Your task to perform on an android device: delete a single message in the gmail app Image 0: 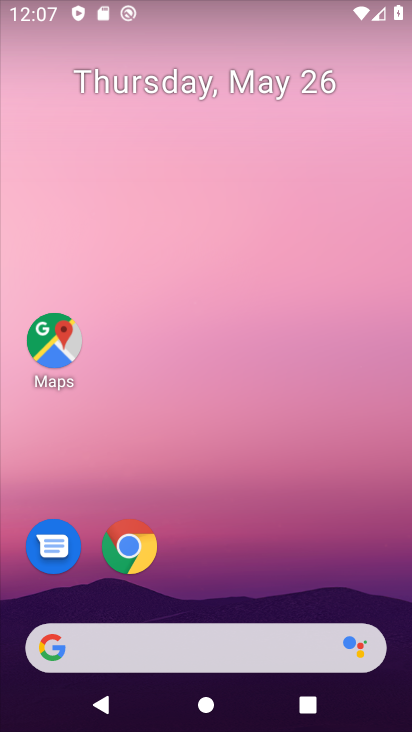
Step 0: drag from (397, 615) to (277, 16)
Your task to perform on an android device: delete a single message in the gmail app Image 1: 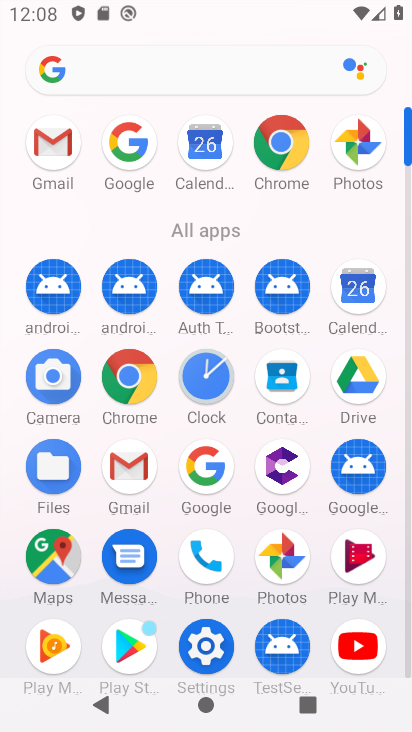
Step 1: click (116, 476)
Your task to perform on an android device: delete a single message in the gmail app Image 2: 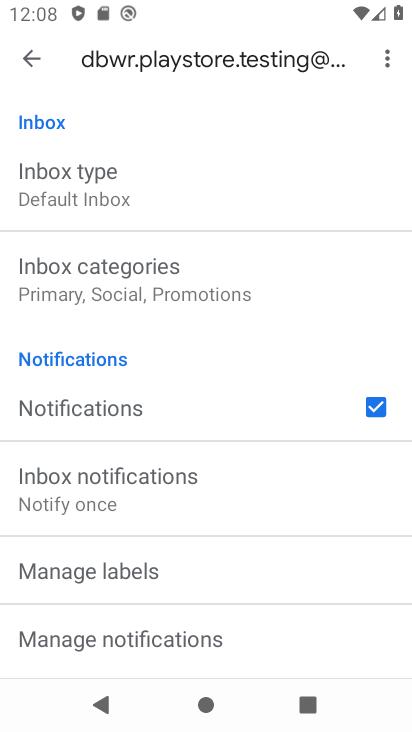
Step 2: press back button
Your task to perform on an android device: delete a single message in the gmail app Image 3: 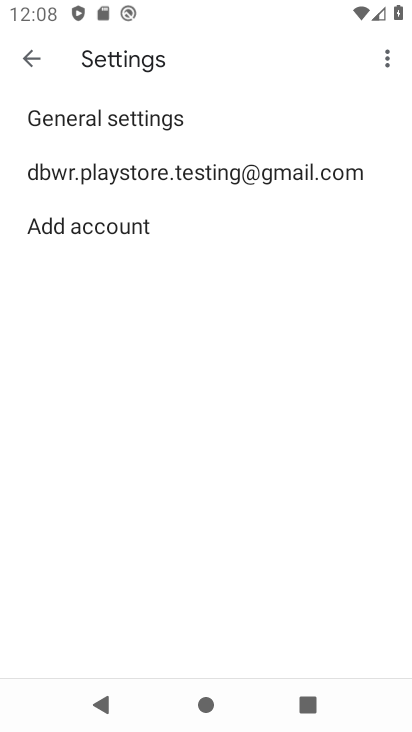
Step 3: press back button
Your task to perform on an android device: delete a single message in the gmail app Image 4: 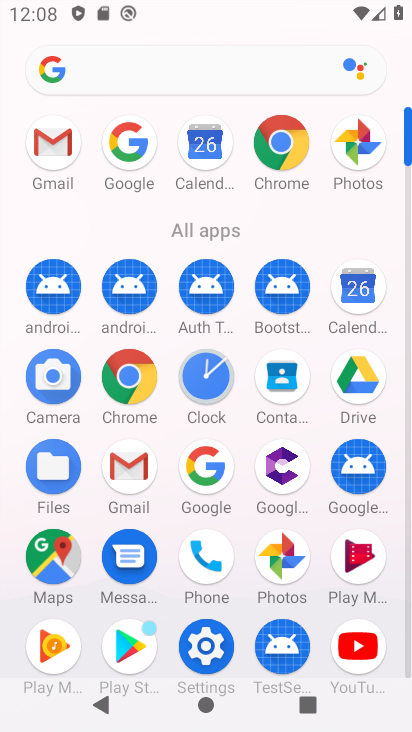
Step 4: click (145, 466)
Your task to perform on an android device: delete a single message in the gmail app Image 5: 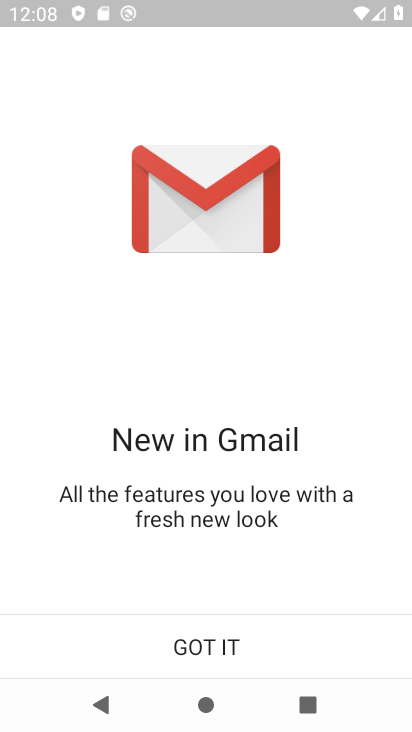
Step 5: click (189, 633)
Your task to perform on an android device: delete a single message in the gmail app Image 6: 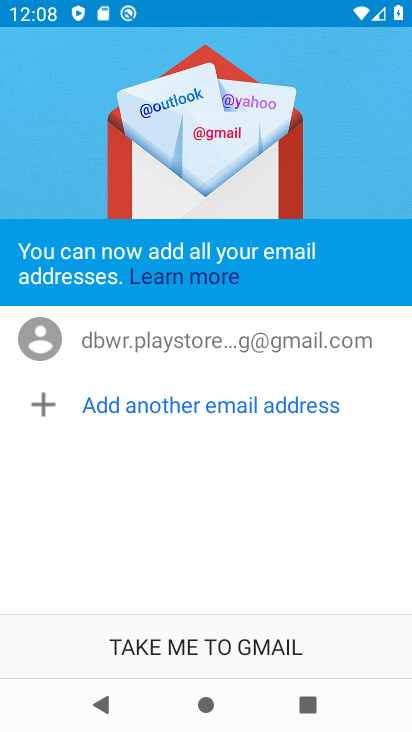
Step 6: click (189, 633)
Your task to perform on an android device: delete a single message in the gmail app Image 7: 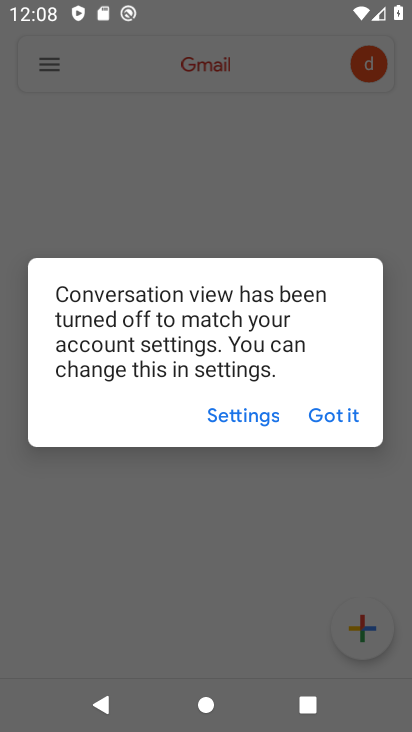
Step 7: click (351, 414)
Your task to perform on an android device: delete a single message in the gmail app Image 8: 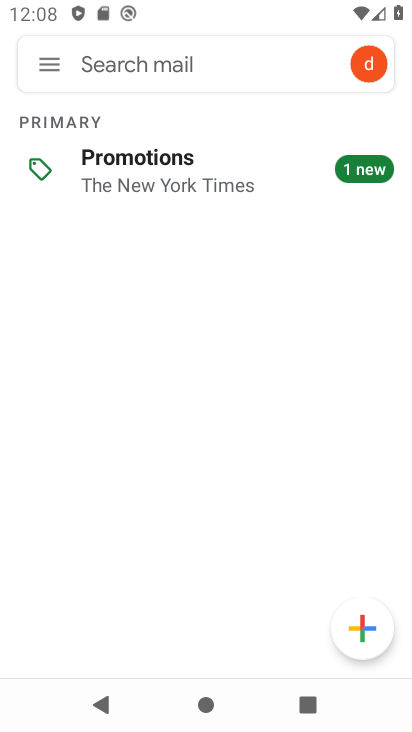
Step 8: task complete